Your task to perform on an android device: change timer sound Image 0: 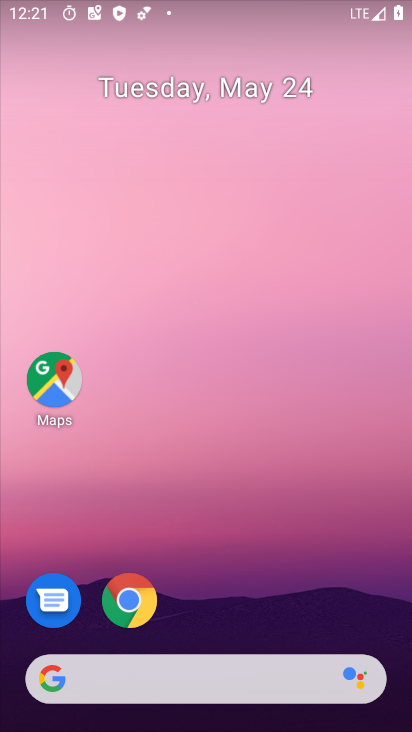
Step 0: drag from (324, 507) to (302, 176)
Your task to perform on an android device: change timer sound Image 1: 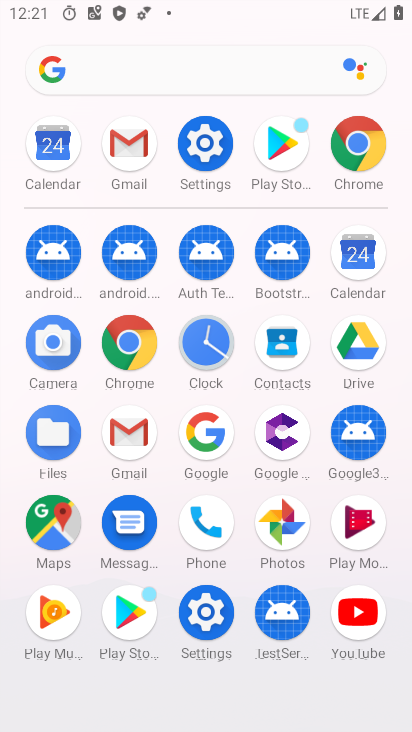
Step 1: click (216, 337)
Your task to perform on an android device: change timer sound Image 2: 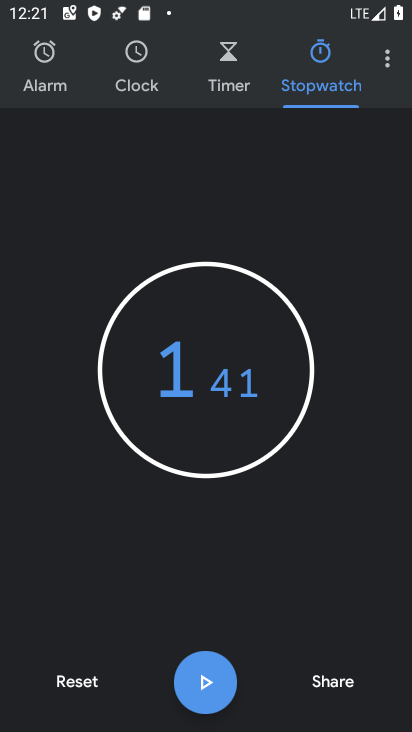
Step 2: click (384, 55)
Your task to perform on an android device: change timer sound Image 3: 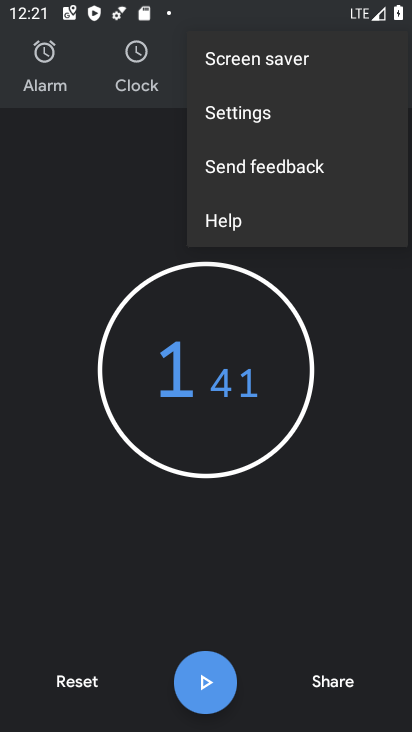
Step 3: click (247, 127)
Your task to perform on an android device: change timer sound Image 4: 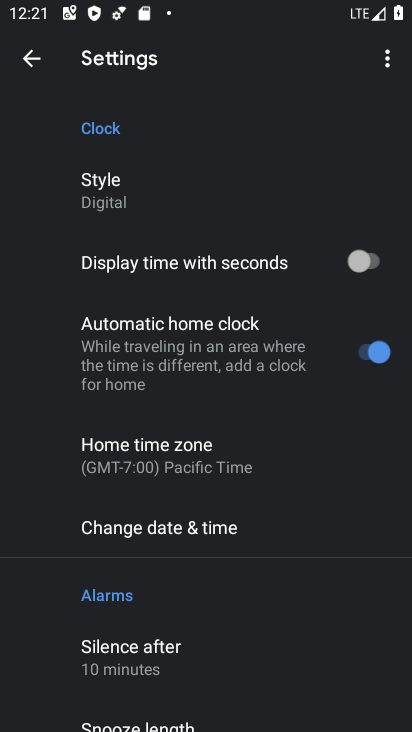
Step 4: drag from (218, 565) to (288, 126)
Your task to perform on an android device: change timer sound Image 5: 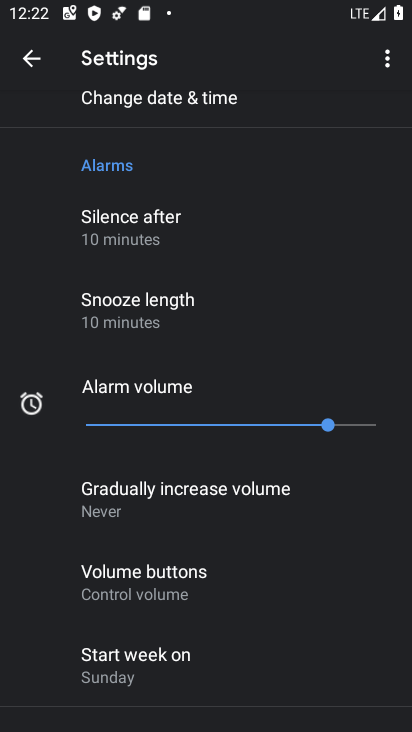
Step 5: drag from (275, 535) to (278, 263)
Your task to perform on an android device: change timer sound Image 6: 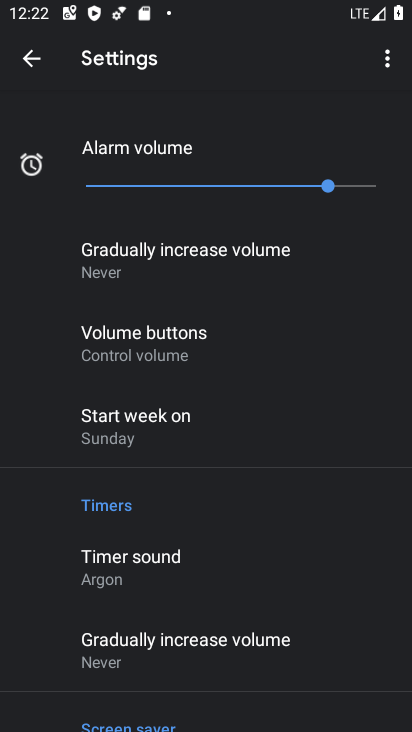
Step 6: click (164, 563)
Your task to perform on an android device: change timer sound Image 7: 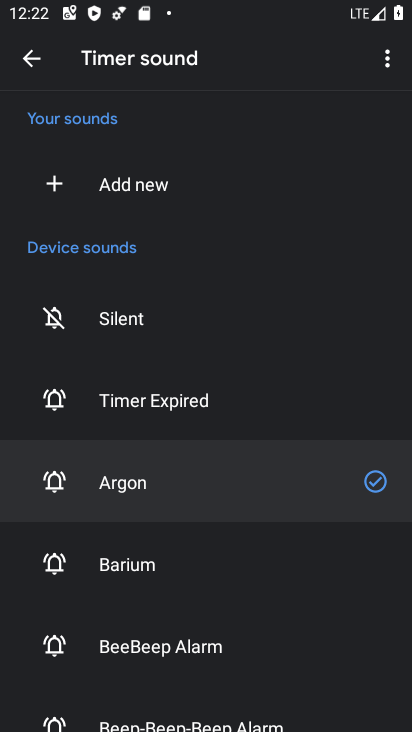
Step 7: click (187, 411)
Your task to perform on an android device: change timer sound Image 8: 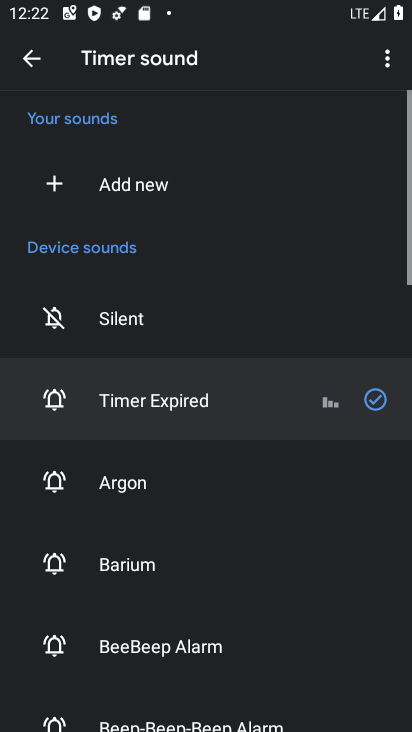
Step 8: task complete